Your task to perform on an android device: toggle notifications settings in the gmail app Image 0: 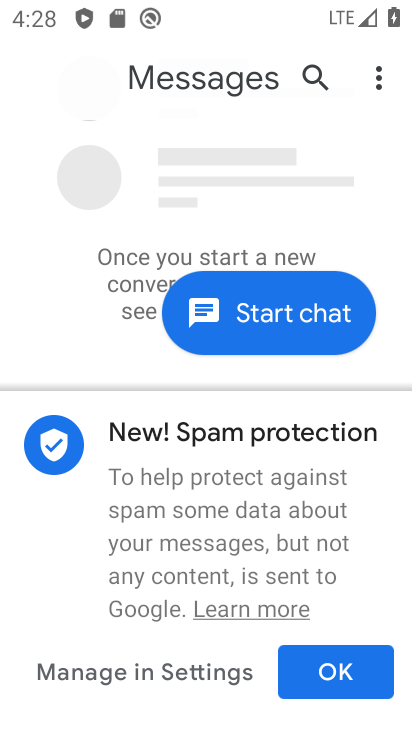
Step 0: press home button
Your task to perform on an android device: toggle notifications settings in the gmail app Image 1: 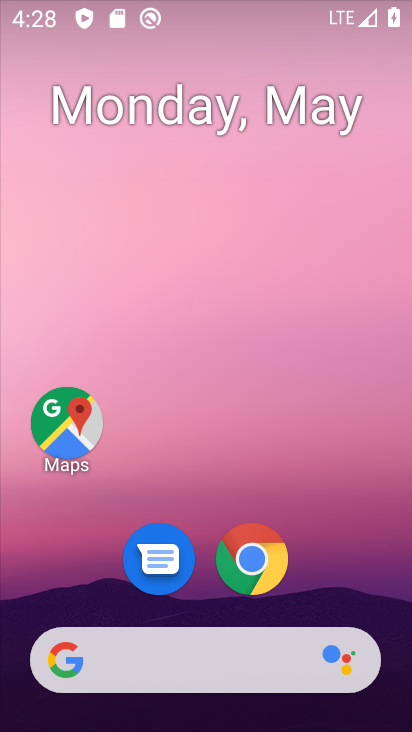
Step 1: drag from (106, 675) to (247, 85)
Your task to perform on an android device: toggle notifications settings in the gmail app Image 2: 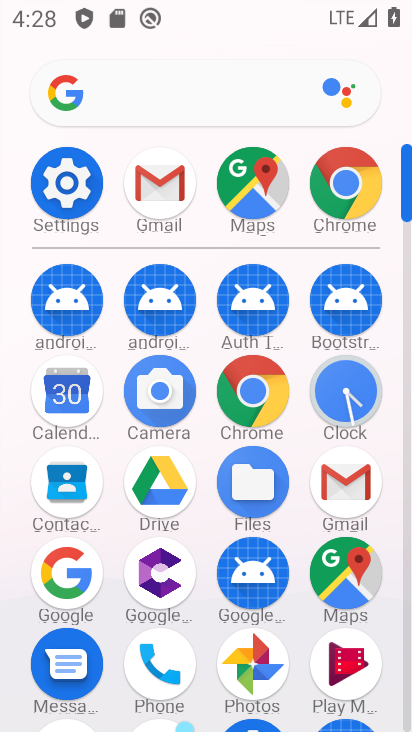
Step 2: click (348, 482)
Your task to perform on an android device: toggle notifications settings in the gmail app Image 3: 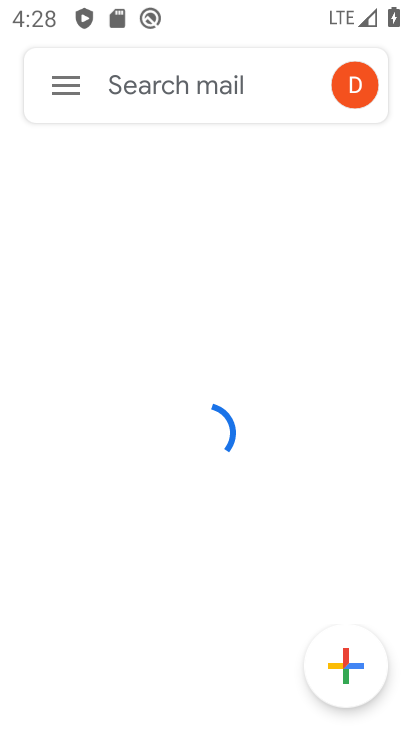
Step 3: click (48, 80)
Your task to perform on an android device: toggle notifications settings in the gmail app Image 4: 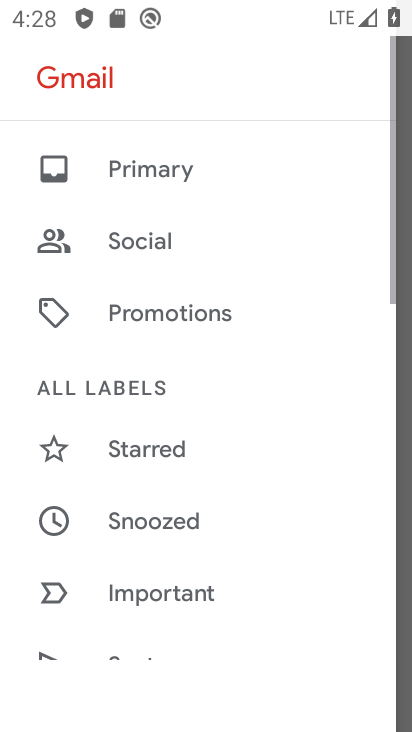
Step 4: drag from (253, 580) to (377, 36)
Your task to perform on an android device: toggle notifications settings in the gmail app Image 5: 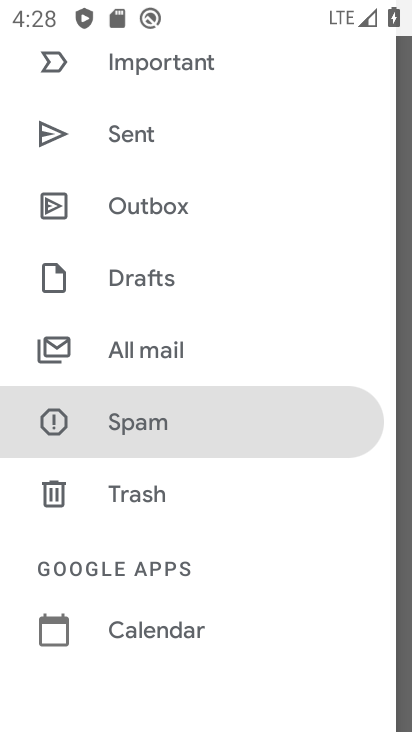
Step 5: drag from (201, 621) to (339, 4)
Your task to perform on an android device: toggle notifications settings in the gmail app Image 6: 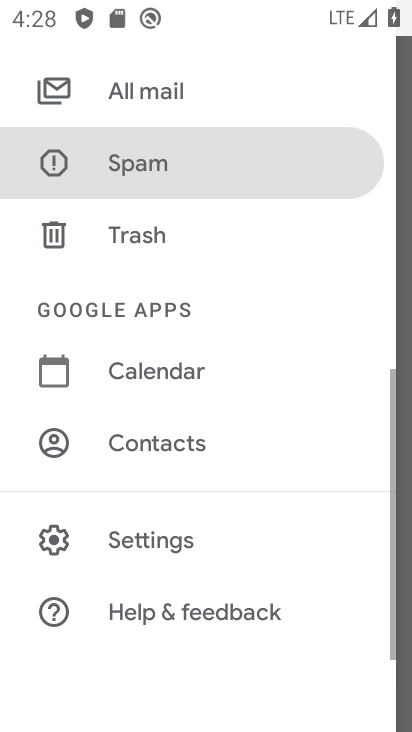
Step 6: click (200, 539)
Your task to perform on an android device: toggle notifications settings in the gmail app Image 7: 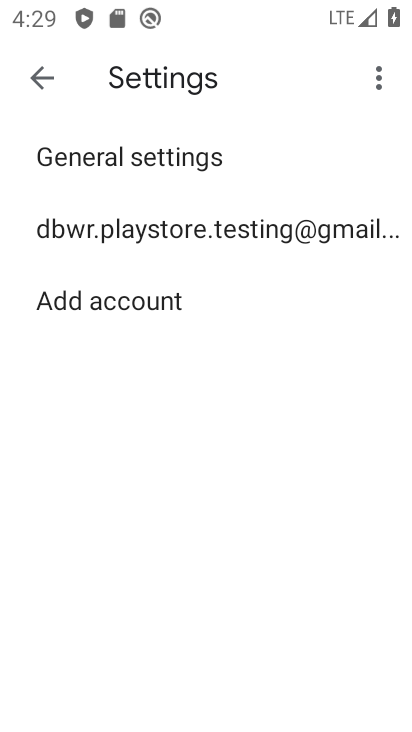
Step 7: click (238, 236)
Your task to perform on an android device: toggle notifications settings in the gmail app Image 8: 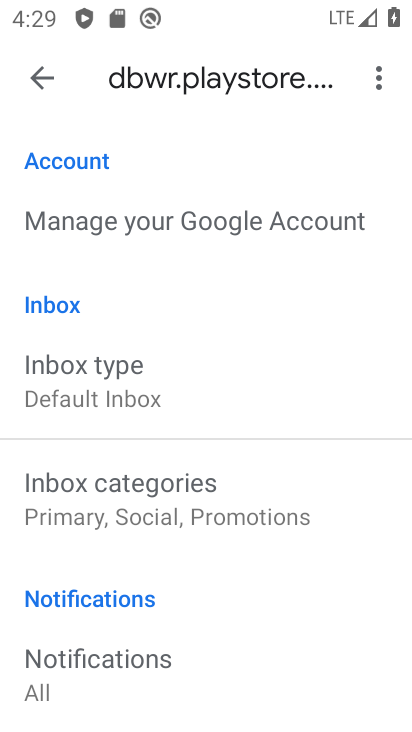
Step 8: drag from (237, 713) to (282, 214)
Your task to perform on an android device: toggle notifications settings in the gmail app Image 9: 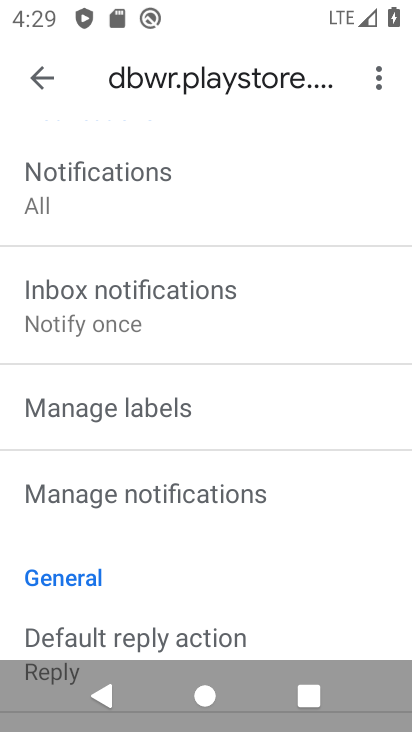
Step 9: click (245, 504)
Your task to perform on an android device: toggle notifications settings in the gmail app Image 10: 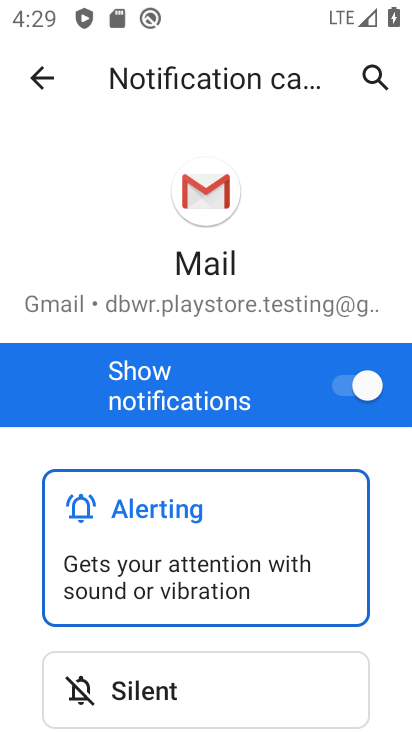
Step 10: click (347, 385)
Your task to perform on an android device: toggle notifications settings in the gmail app Image 11: 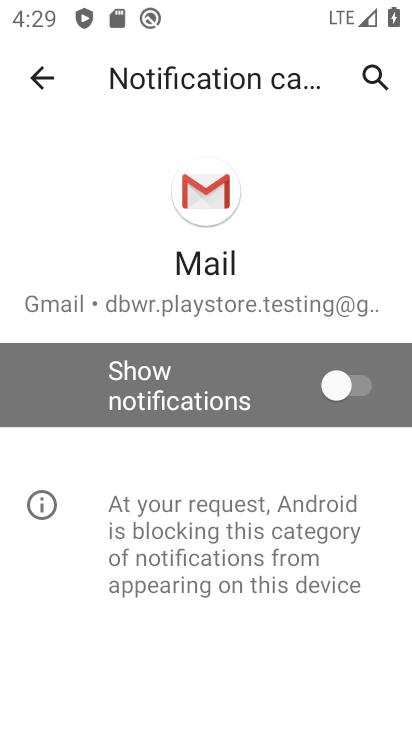
Step 11: task complete